Your task to perform on an android device: open app "Messenger Lite" (install if not already installed), go to login, and select forgot password Image 0: 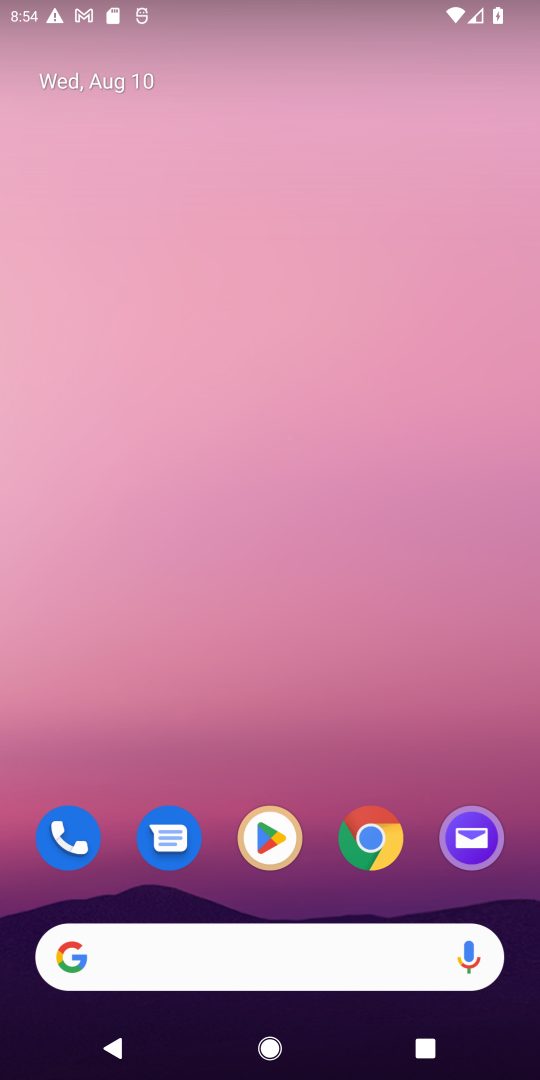
Step 0: press home button
Your task to perform on an android device: open app "Messenger Lite" (install if not already installed), go to login, and select forgot password Image 1: 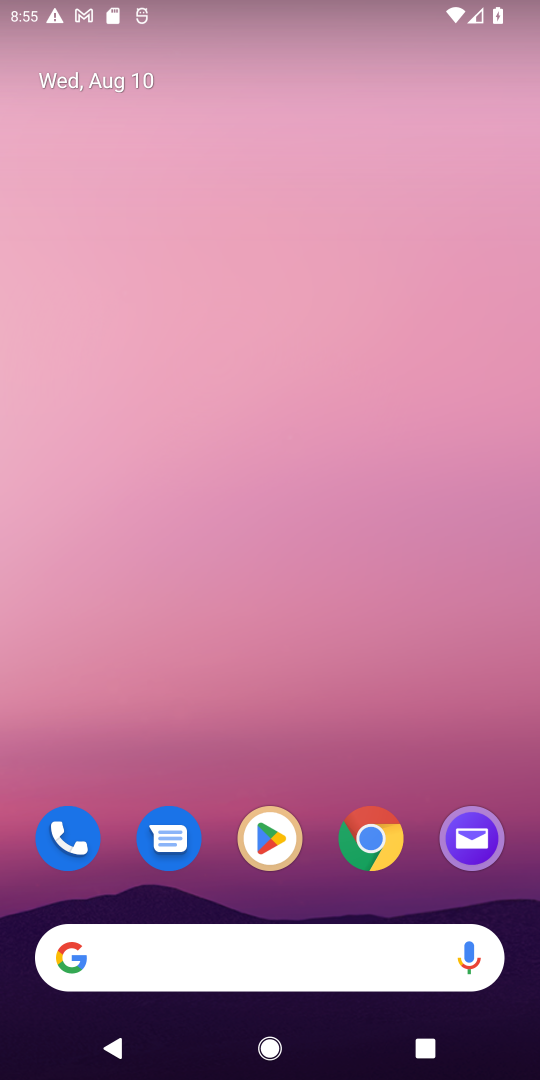
Step 1: click (266, 824)
Your task to perform on an android device: open app "Messenger Lite" (install if not already installed), go to login, and select forgot password Image 2: 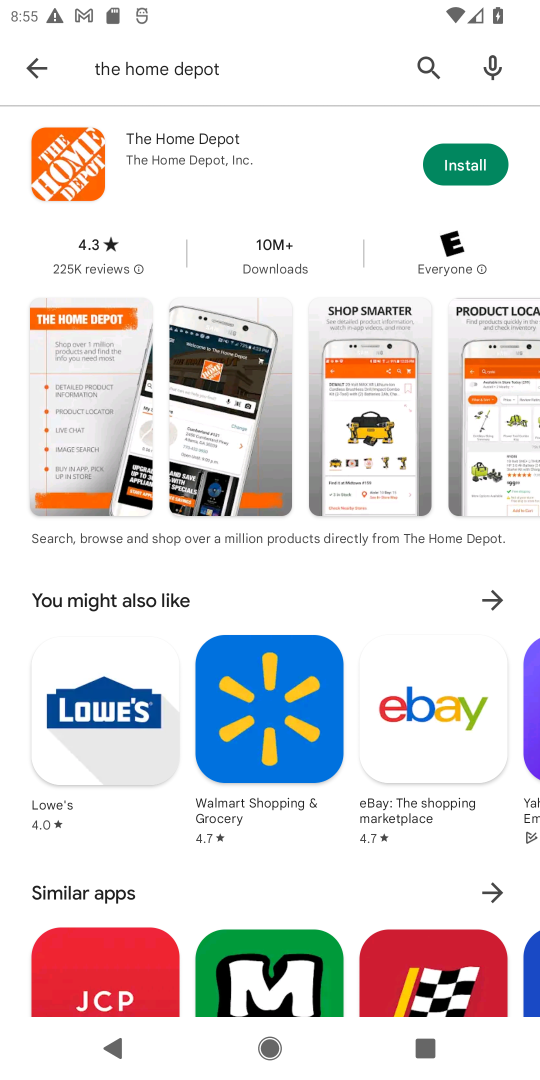
Step 2: click (432, 68)
Your task to perform on an android device: open app "Messenger Lite" (install if not already installed), go to login, and select forgot password Image 3: 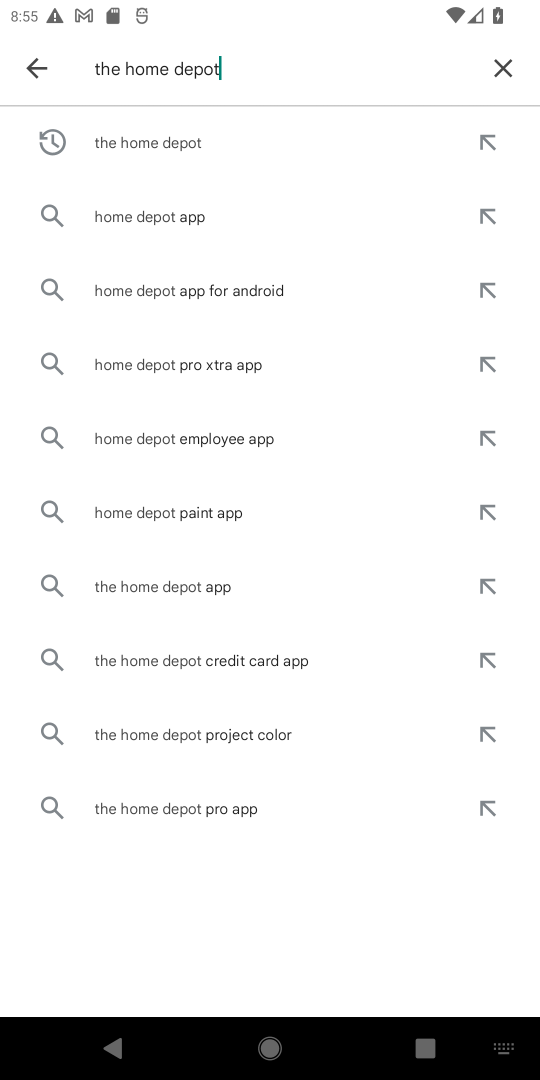
Step 3: click (501, 65)
Your task to perform on an android device: open app "Messenger Lite" (install if not already installed), go to login, and select forgot password Image 4: 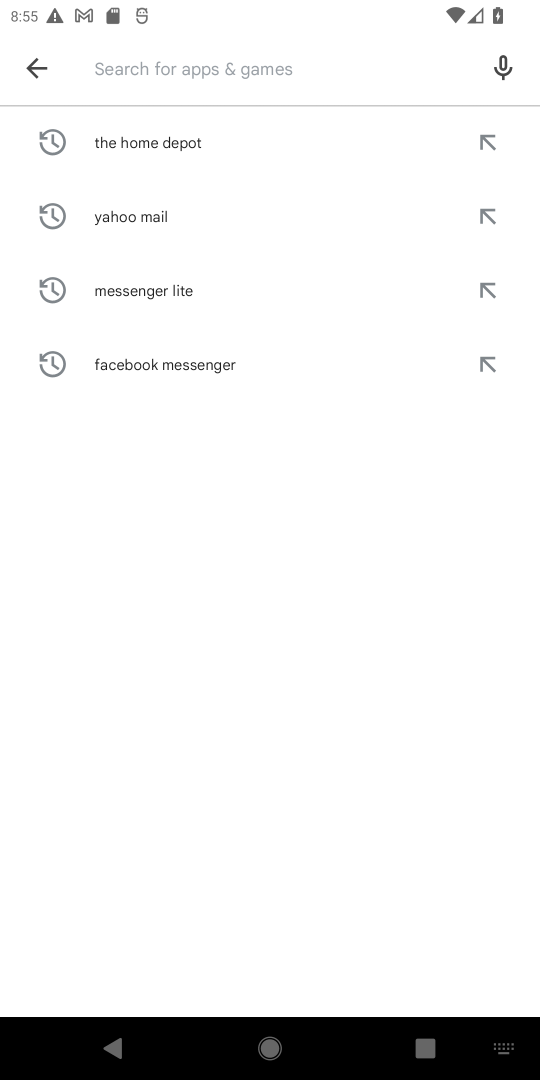
Step 4: type "Messenger Lite"
Your task to perform on an android device: open app "Messenger Lite" (install if not already installed), go to login, and select forgot password Image 5: 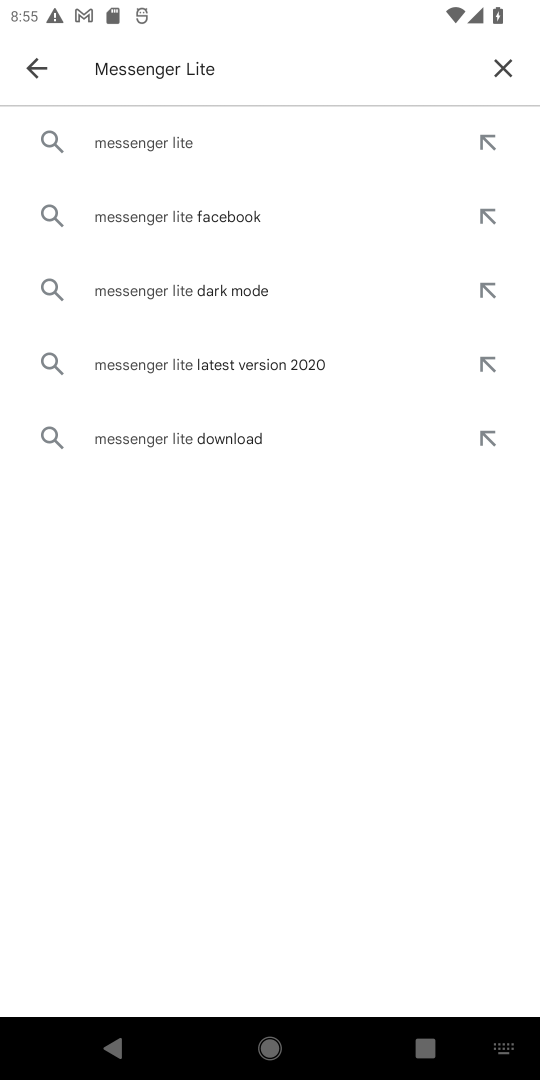
Step 5: click (184, 125)
Your task to perform on an android device: open app "Messenger Lite" (install if not already installed), go to login, and select forgot password Image 6: 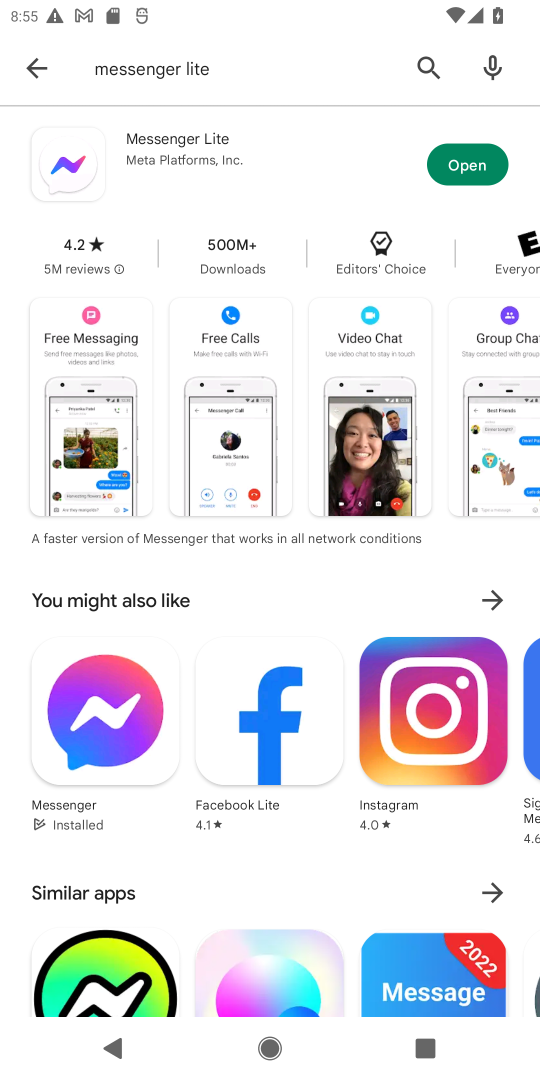
Step 6: click (463, 167)
Your task to perform on an android device: open app "Messenger Lite" (install if not already installed), go to login, and select forgot password Image 7: 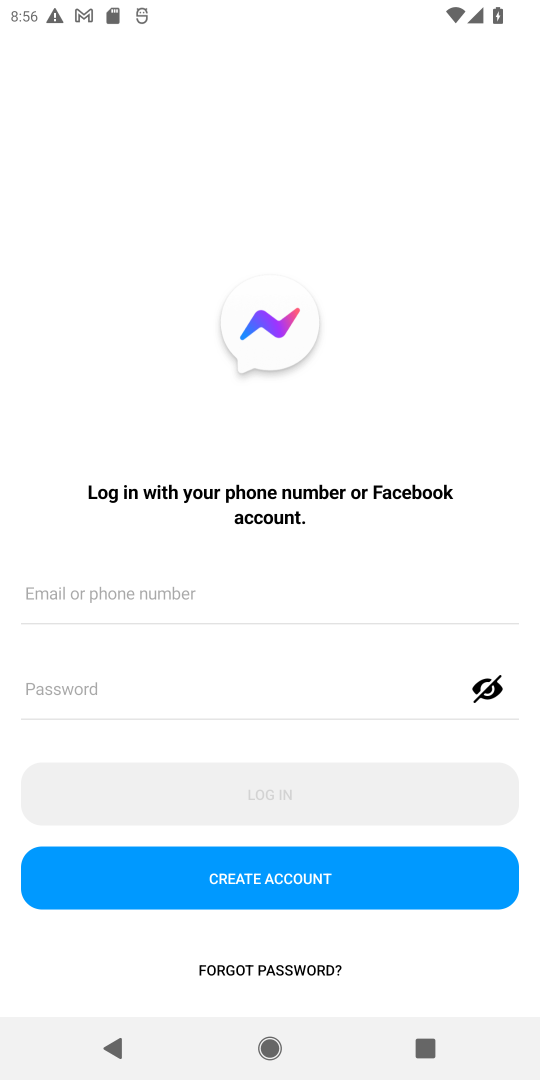
Step 7: task complete